Your task to perform on an android device: Open privacy settings Image 0: 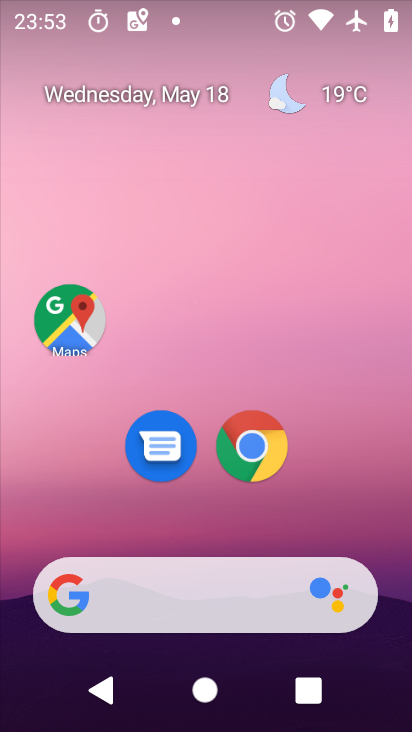
Step 0: press home button
Your task to perform on an android device: Open privacy settings Image 1: 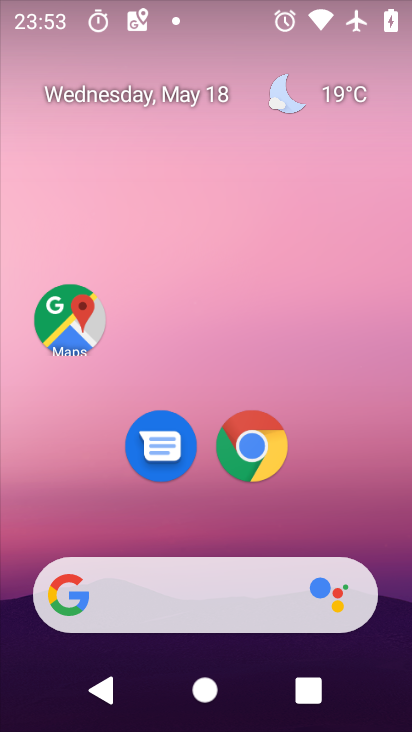
Step 1: drag from (172, 605) to (360, 87)
Your task to perform on an android device: Open privacy settings Image 2: 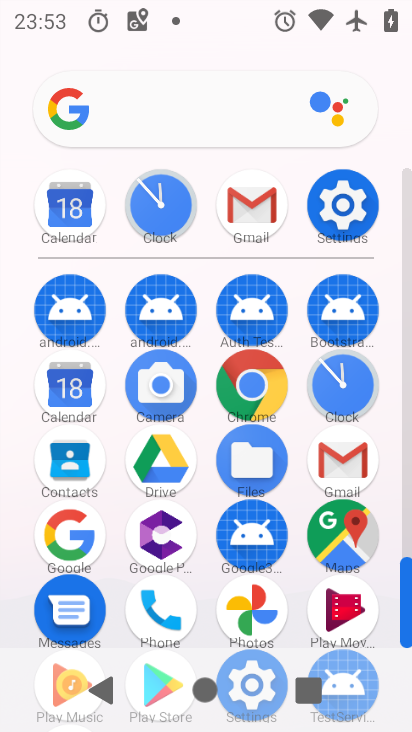
Step 2: click (345, 206)
Your task to perform on an android device: Open privacy settings Image 3: 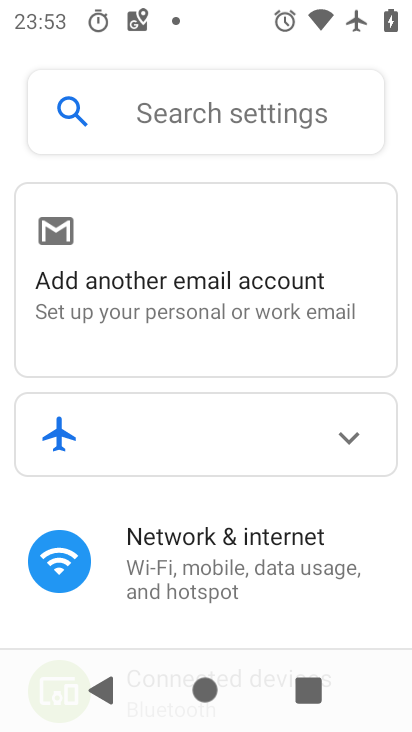
Step 3: drag from (207, 549) to (369, 112)
Your task to perform on an android device: Open privacy settings Image 4: 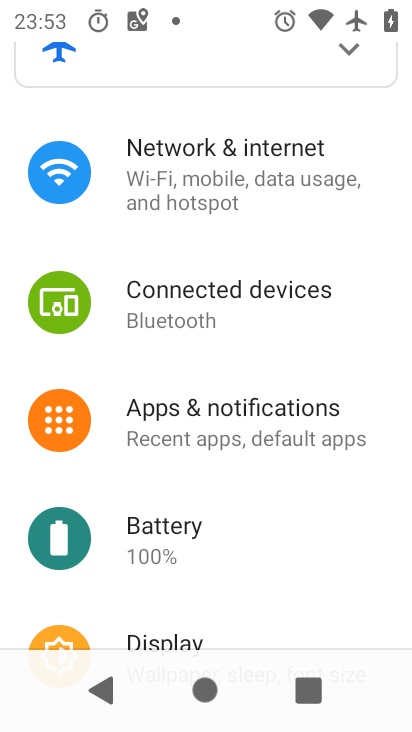
Step 4: drag from (223, 545) to (373, 5)
Your task to perform on an android device: Open privacy settings Image 5: 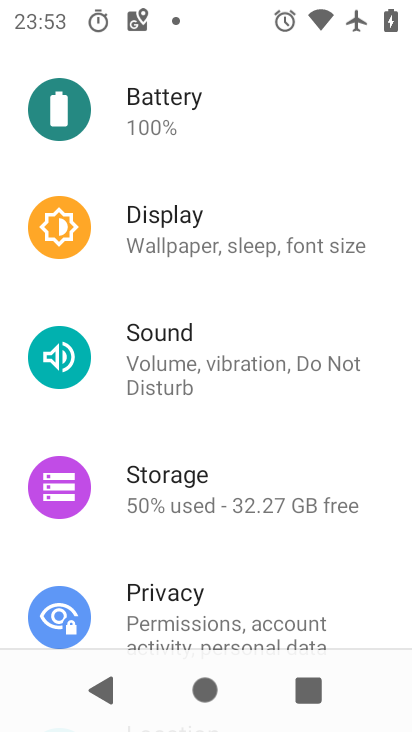
Step 5: click (166, 595)
Your task to perform on an android device: Open privacy settings Image 6: 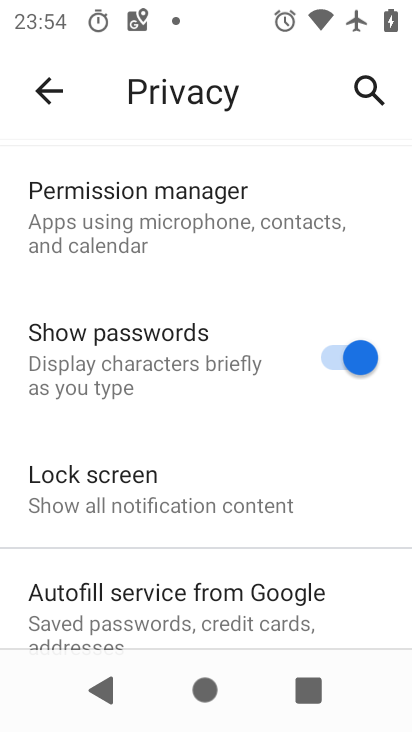
Step 6: task complete